Your task to perform on an android device: toggle data saver in the chrome app Image 0: 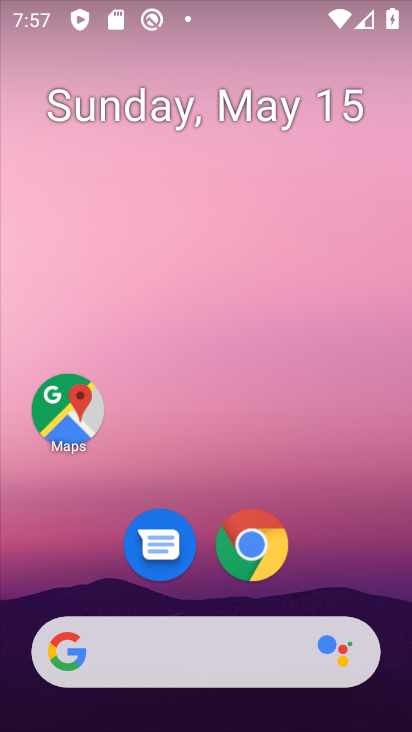
Step 0: drag from (373, 580) to (357, 94)
Your task to perform on an android device: toggle data saver in the chrome app Image 1: 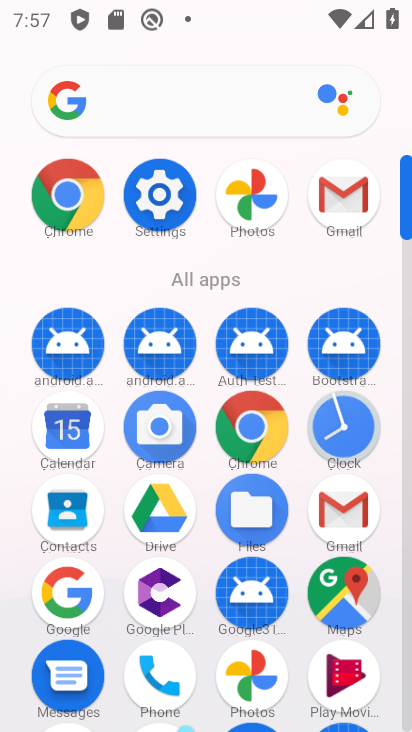
Step 1: click (267, 439)
Your task to perform on an android device: toggle data saver in the chrome app Image 2: 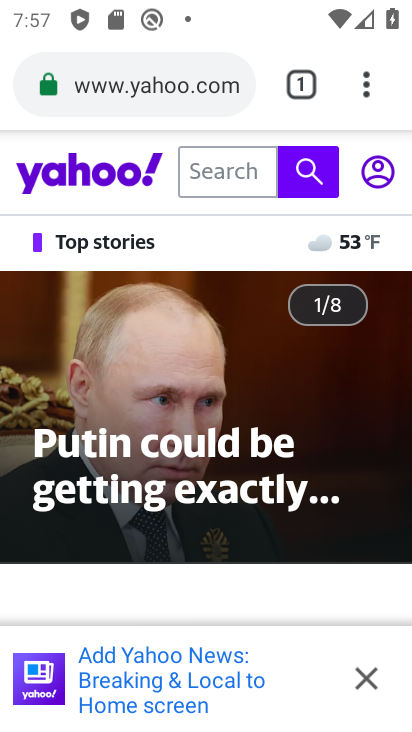
Step 2: click (371, 98)
Your task to perform on an android device: toggle data saver in the chrome app Image 3: 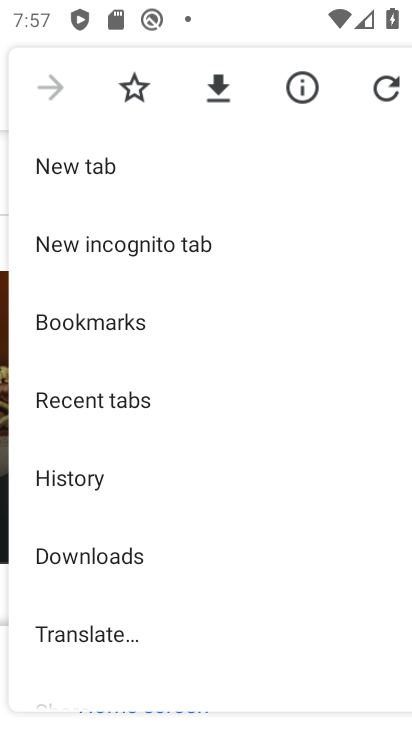
Step 3: drag from (332, 611) to (362, 356)
Your task to perform on an android device: toggle data saver in the chrome app Image 4: 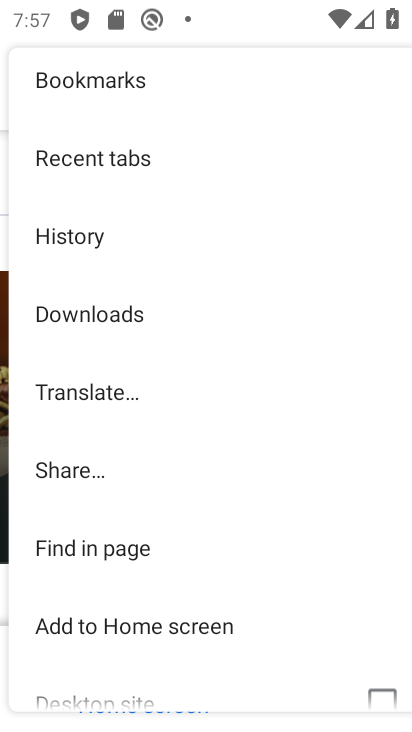
Step 4: drag from (325, 618) to (293, 343)
Your task to perform on an android device: toggle data saver in the chrome app Image 5: 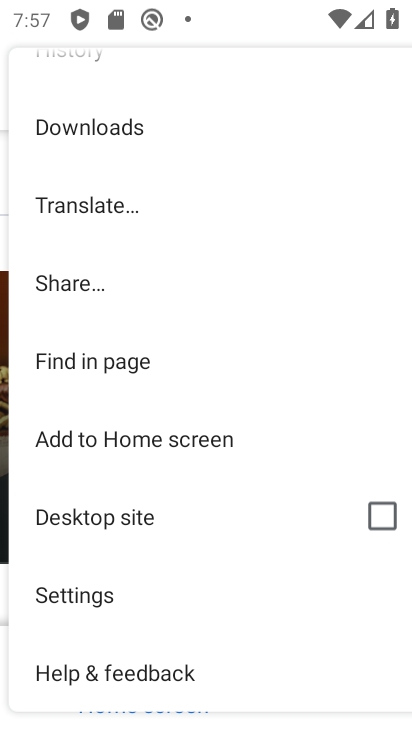
Step 5: drag from (303, 631) to (320, 300)
Your task to perform on an android device: toggle data saver in the chrome app Image 6: 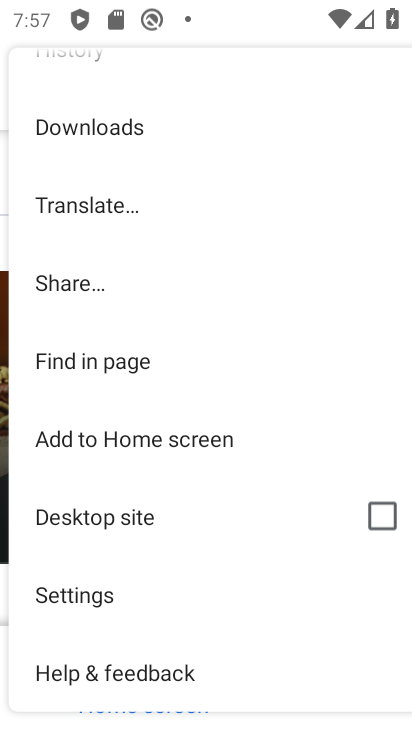
Step 6: drag from (302, 154) to (277, 442)
Your task to perform on an android device: toggle data saver in the chrome app Image 7: 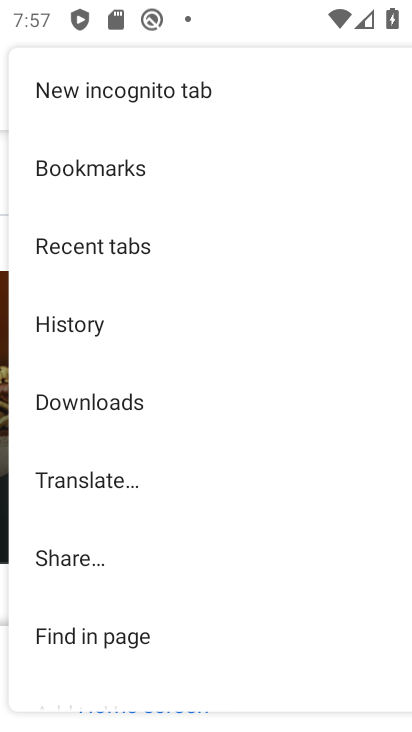
Step 7: drag from (294, 223) to (270, 414)
Your task to perform on an android device: toggle data saver in the chrome app Image 8: 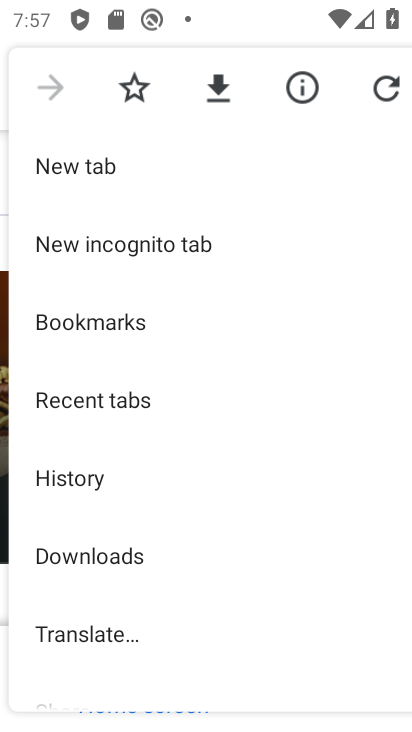
Step 8: drag from (306, 591) to (324, 361)
Your task to perform on an android device: toggle data saver in the chrome app Image 9: 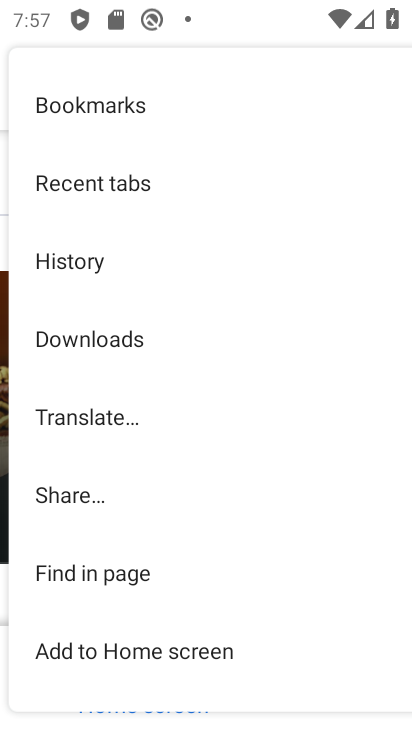
Step 9: drag from (301, 634) to (331, 289)
Your task to perform on an android device: toggle data saver in the chrome app Image 10: 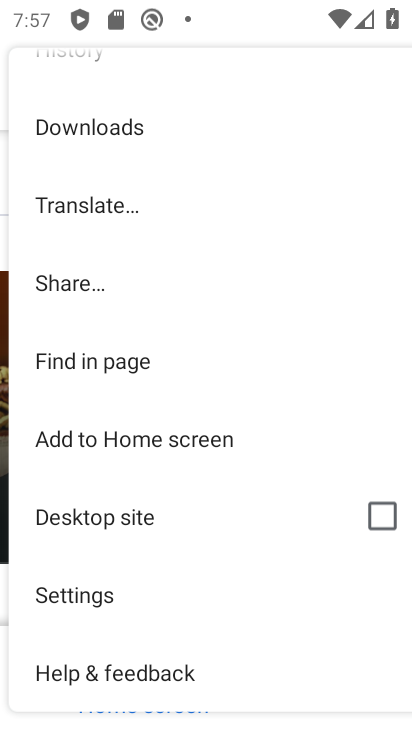
Step 10: click (168, 614)
Your task to perform on an android device: toggle data saver in the chrome app Image 11: 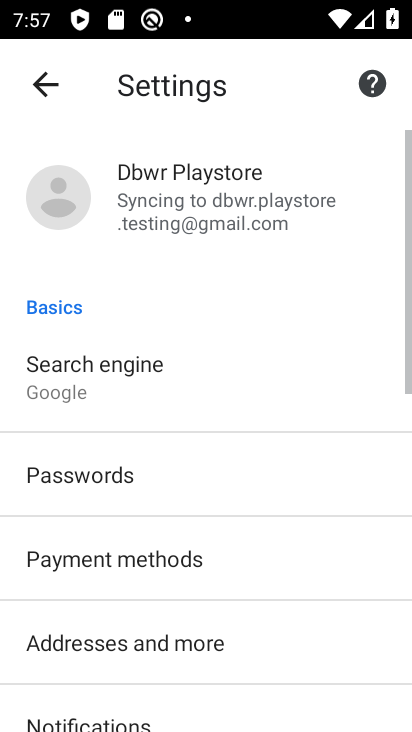
Step 11: drag from (310, 639) to (322, 439)
Your task to perform on an android device: toggle data saver in the chrome app Image 12: 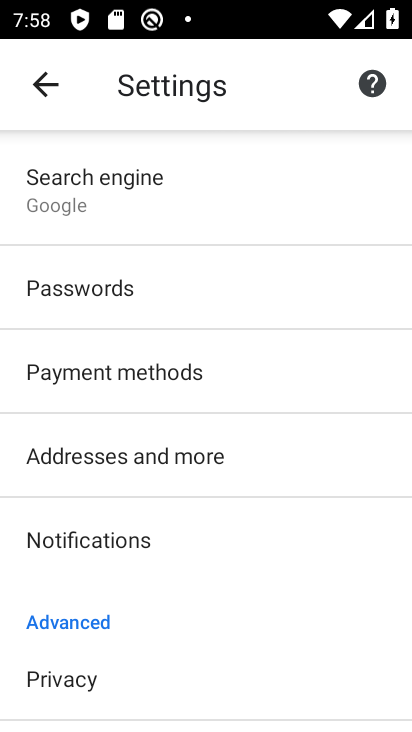
Step 12: drag from (319, 653) to (346, 451)
Your task to perform on an android device: toggle data saver in the chrome app Image 13: 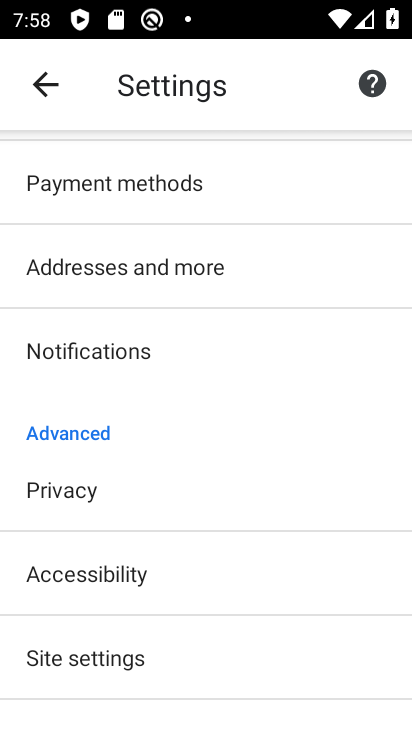
Step 13: drag from (291, 669) to (319, 438)
Your task to perform on an android device: toggle data saver in the chrome app Image 14: 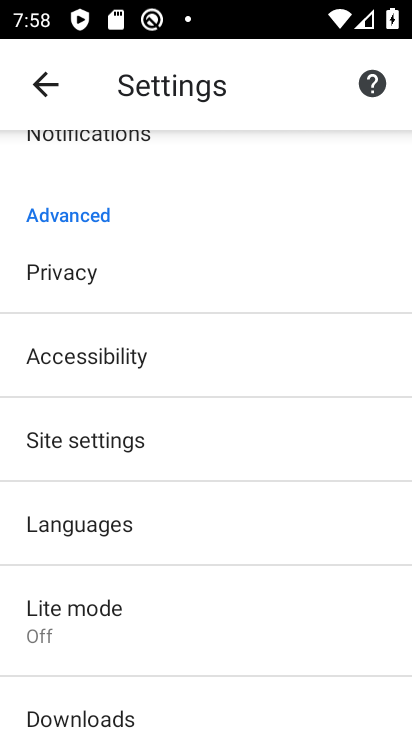
Step 14: click (255, 627)
Your task to perform on an android device: toggle data saver in the chrome app Image 15: 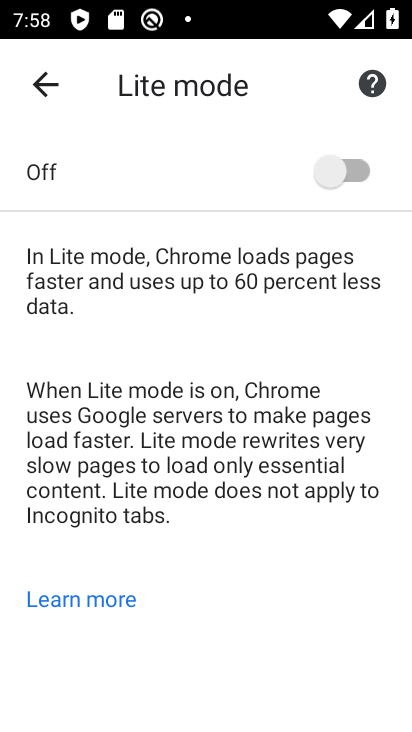
Step 15: click (336, 188)
Your task to perform on an android device: toggle data saver in the chrome app Image 16: 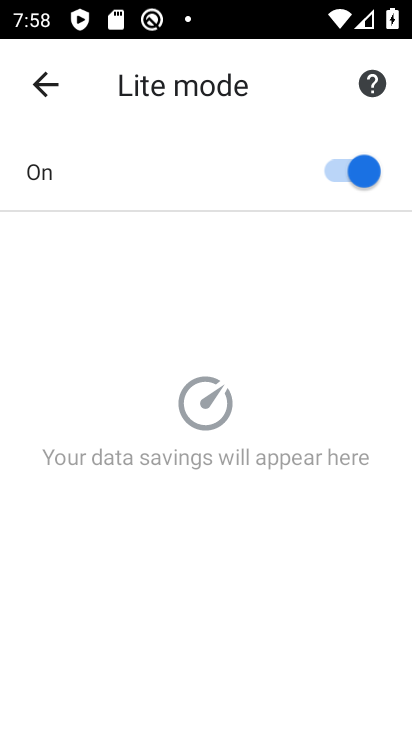
Step 16: task complete